Your task to perform on an android device: add a contact in the contacts app Image 0: 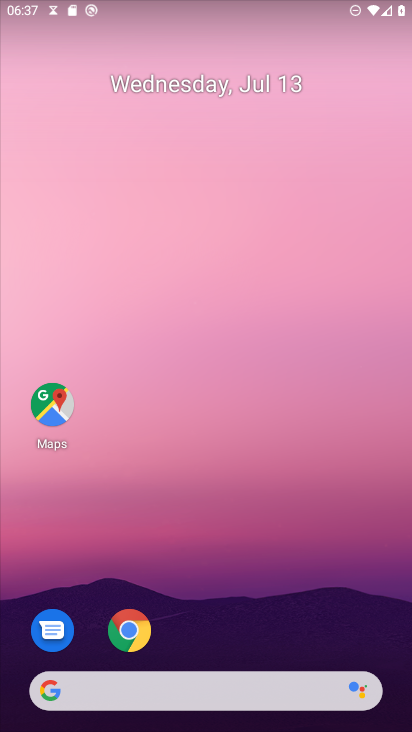
Step 0: drag from (147, 672) to (209, 0)
Your task to perform on an android device: add a contact in the contacts app Image 1: 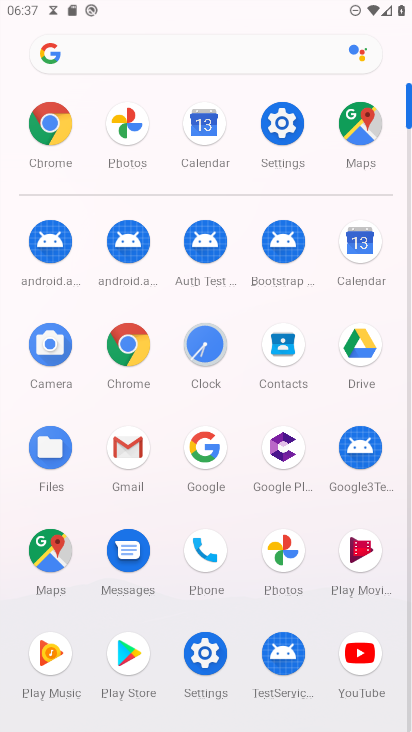
Step 1: click (284, 340)
Your task to perform on an android device: add a contact in the contacts app Image 2: 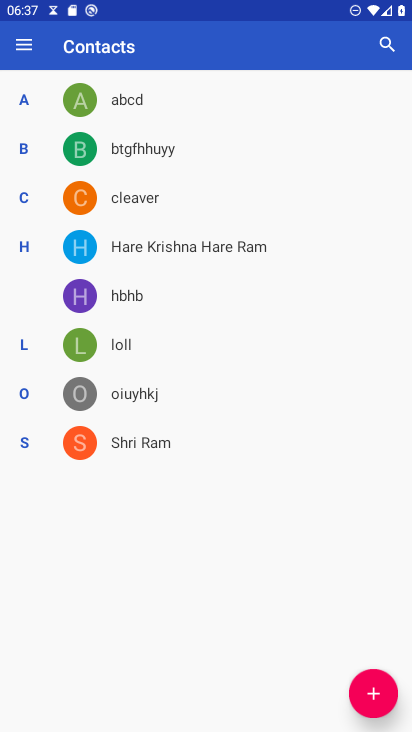
Step 2: click (378, 689)
Your task to perform on an android device: add a contact in the contacts app Image 3: 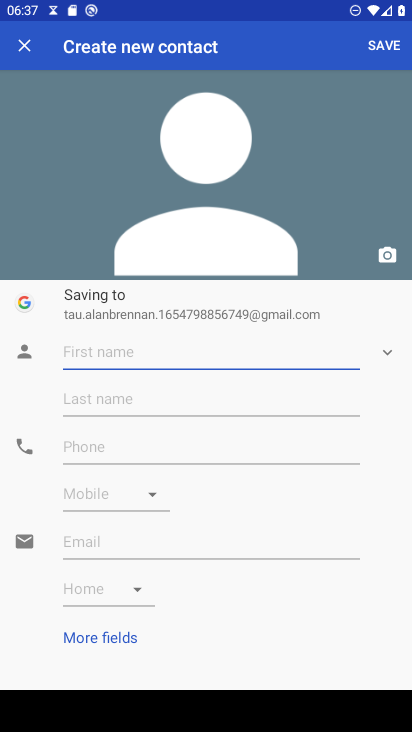
Step 3: type "shubham"
Your task to perform on an android device: add a contact in the contacts app Image 4: 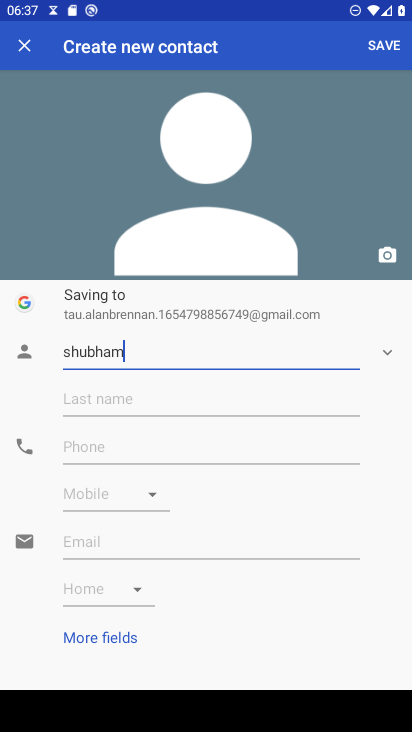
Step 4: click (129, 458)
Your task to perform on an android device: add a contact in the contacts app Image 5: 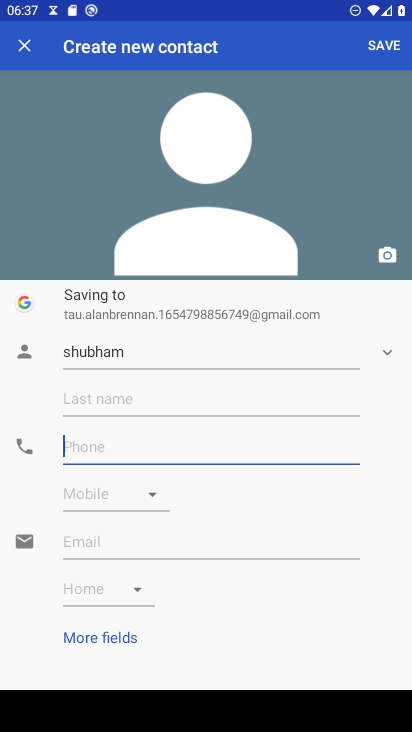
Step 5: type "8768768769"
Your task to perform on an android device: add a contact in the contacts app Image 6: 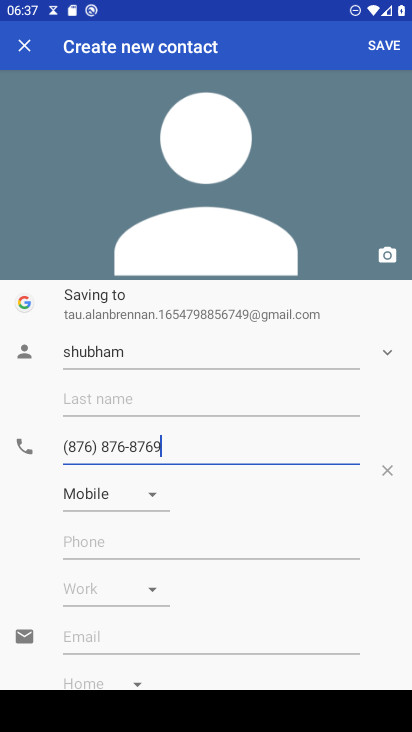
Step 6: click (388, 46)
Your task to perform on an android device: add a contact in the contacts app Image 7: 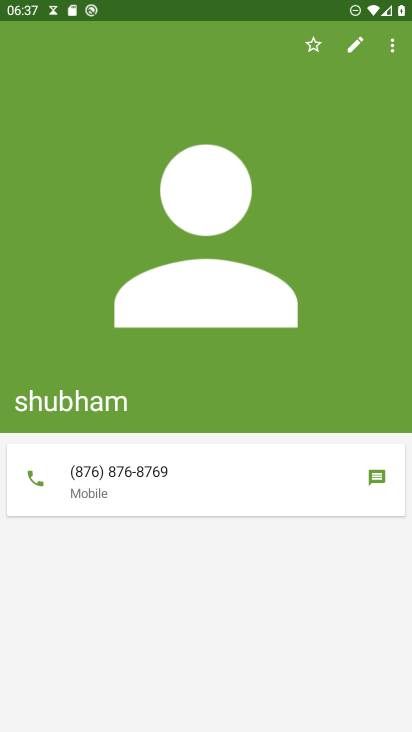
Step 7: task complete